Your task to perform on an android device: What's on my calendar today? Image 0: 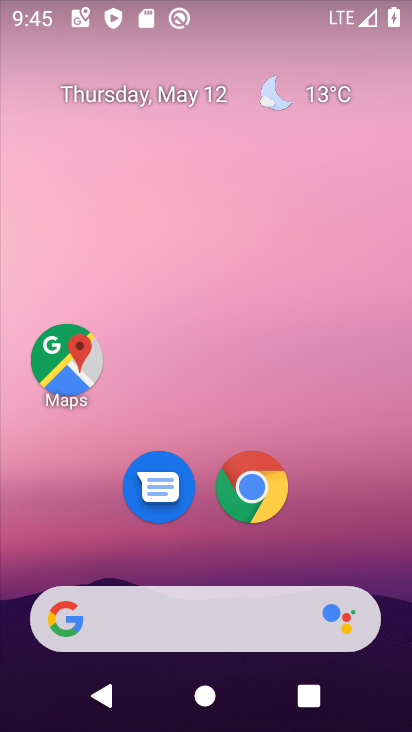
Step 0: drag from (346, 531) to (311, 5)
Your task to perform on an android device: What's on my calendar today? Image 1: 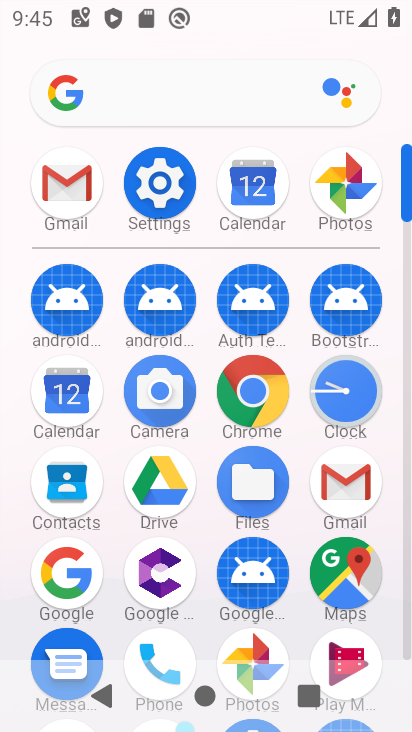
Step 1: click (246, 200)
Your task to perform on an android device: What's on my calendar today? Image 2: 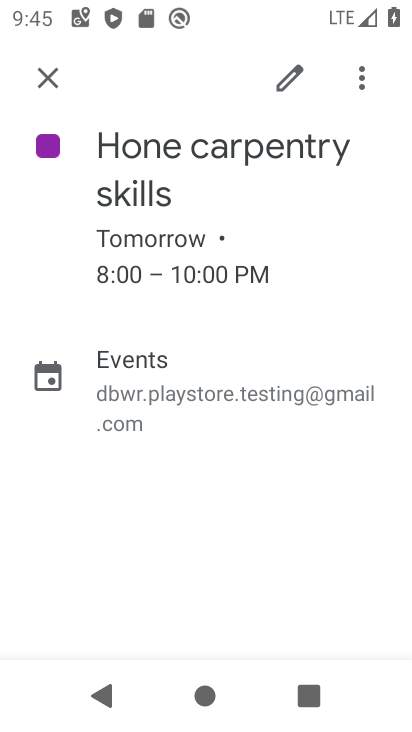
Step 2: click (51, 81)
Your task to perform on an android device: What's on my calendar today? Image 3: 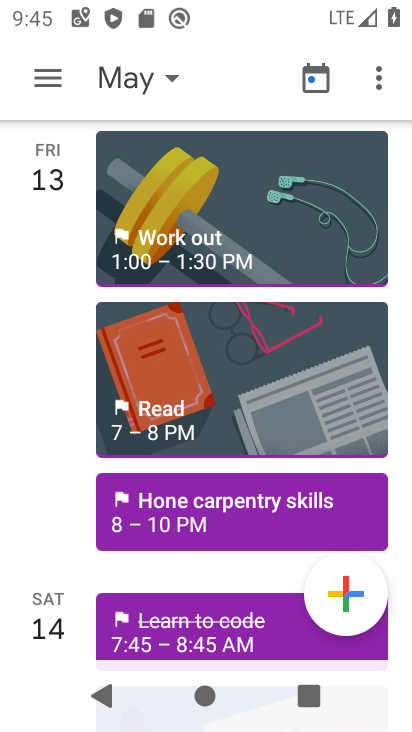
Step 3: drag from (218, 304) to (214, 535)
Your task to perform on an android device: What's on my calendar today? Image 4: 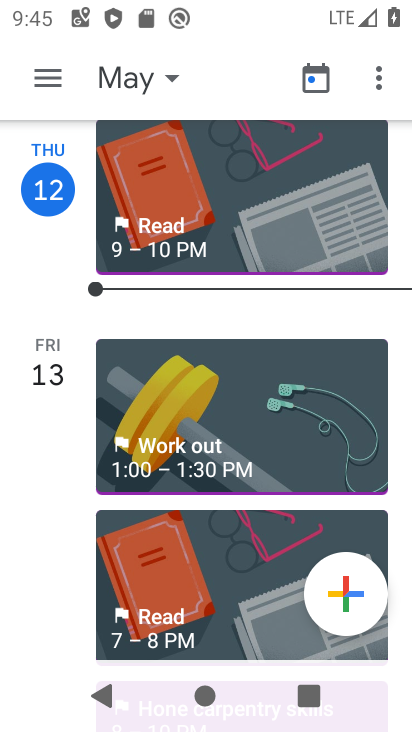
Step 4: drag from (257, 269) to (265, 433)
Your task to perform on an android device: What's on my calendar today? Image 5: 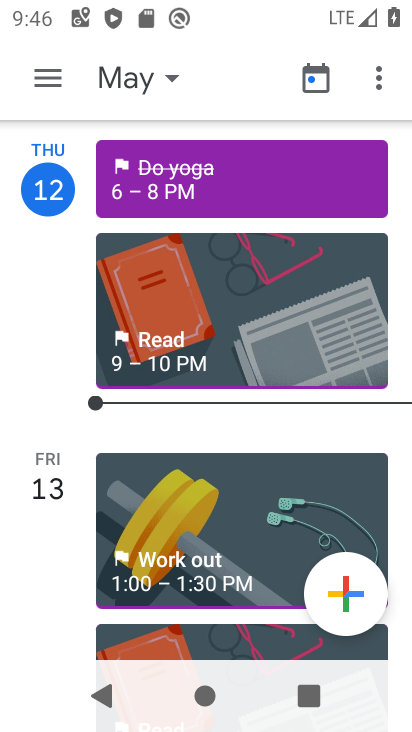
Step 5: click (267, 301)
Your task to perform on an android device: What's on my calendar today? Image 6: 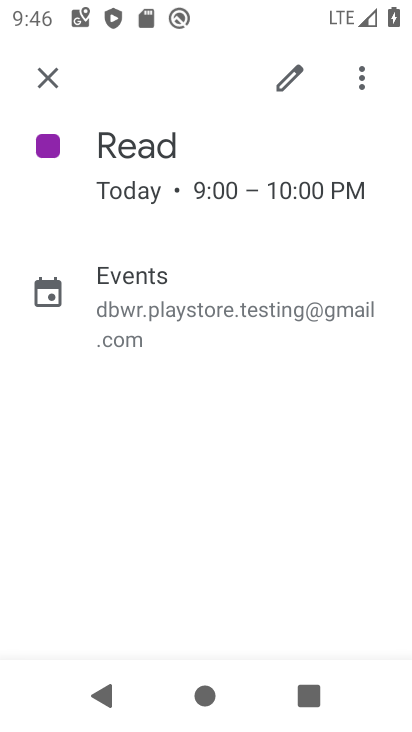
Step 6: task complete